Your task to perform on an android device: open sync settings in chrome Image 0: 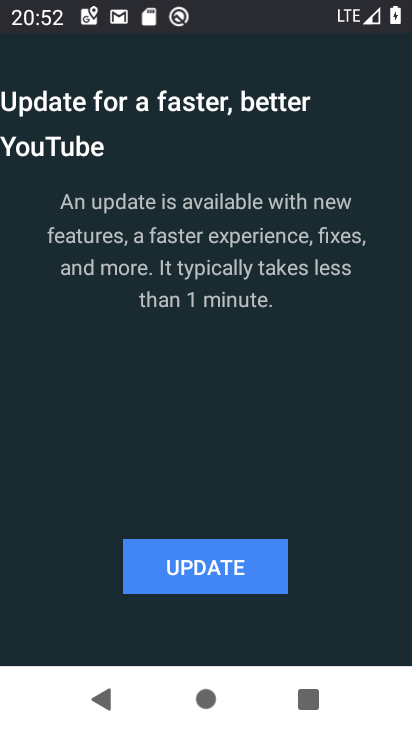
Step 0: press back button
Your task to perform on an android device: open sync settings in chrome Image 1: 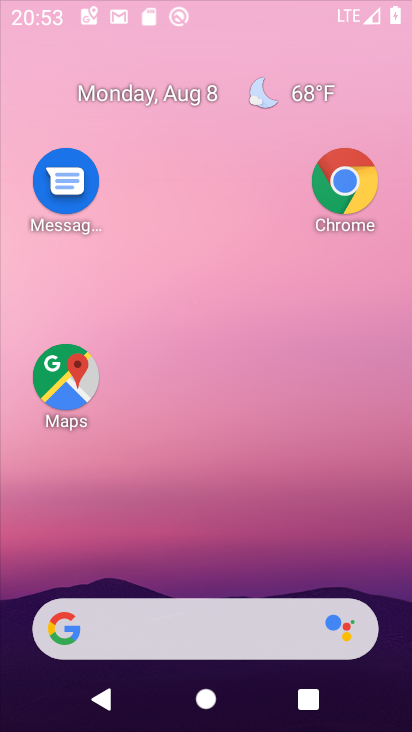
Step 1: press back button
Your task to perform on an android device: open sync settings in chrome Image 2: 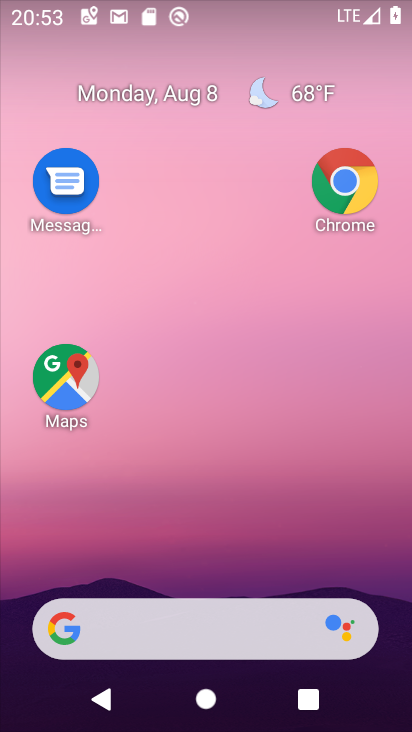
Step 2: click (354, 188)
Your task to perform on an android device: open sync settings in chrome Image 3: 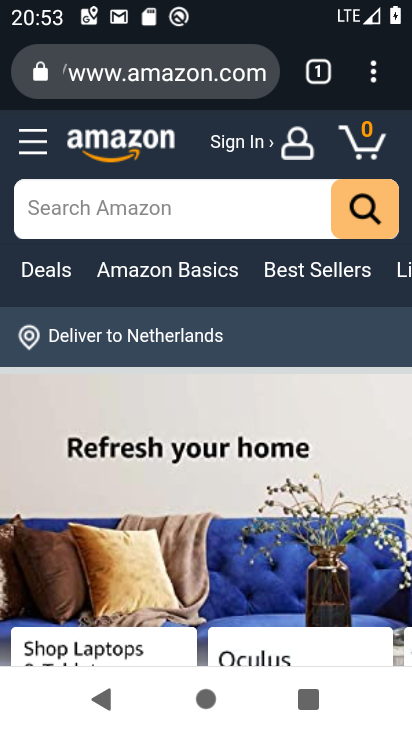
Step 3: click (374, 83)
Your task to perform on an android device: open sync settings in chrome Image 4: 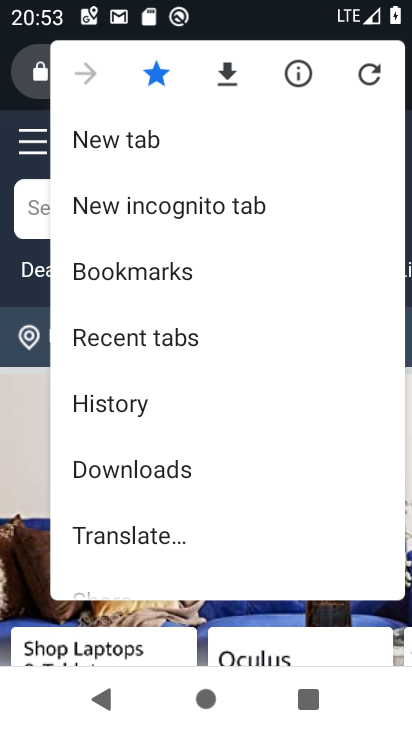
Step 4: drag from (95, 492) to (41, 54)
Your task to perform on an android device: open sync settings in chrome Image 5: 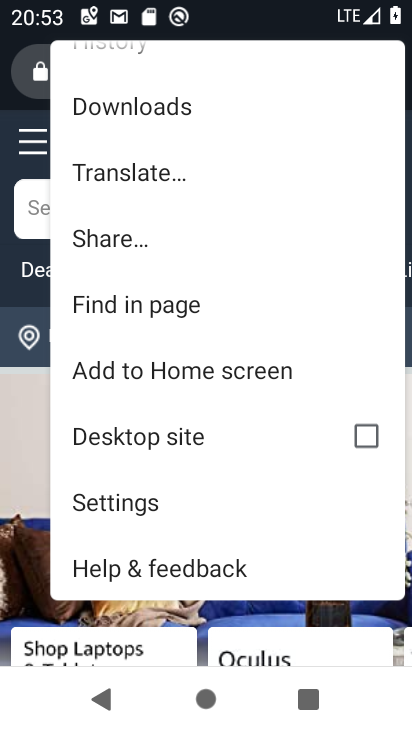
Step 5: click (81, 495)
Your task to perform on an android device: open sync settings in chrome Image 6: 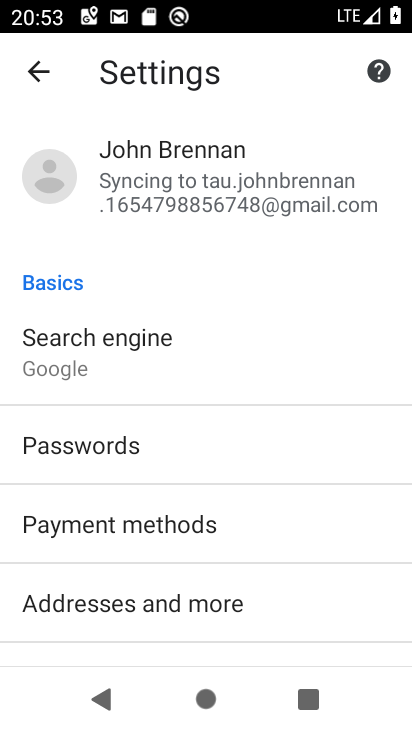
Step 6: click (181, 216)
Your task to perform on an android device: open sync settings in chrome Image 7: 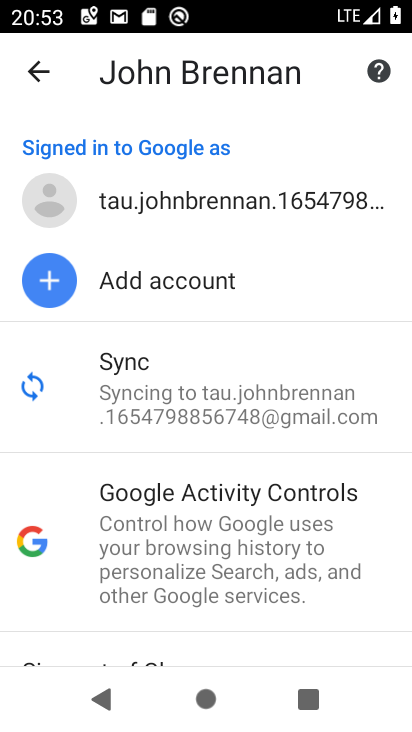
Step 7: click (134, 373)
Your task to perform on an android device: open sync settings in chrome Image 8: 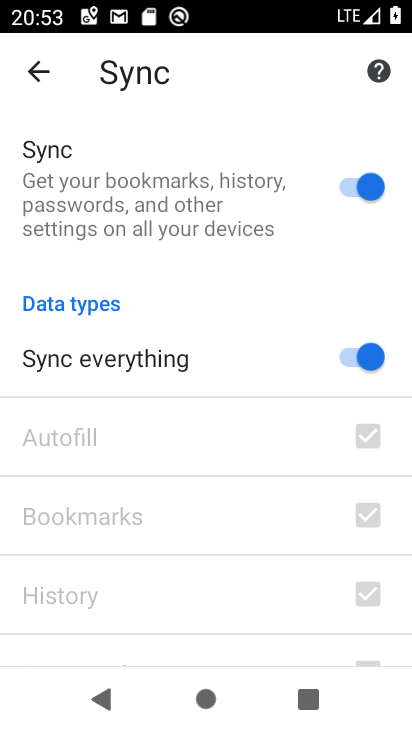
Step 8: task complete